Your task to perform on an android device: search for starred emails in the gmail app Image 0: 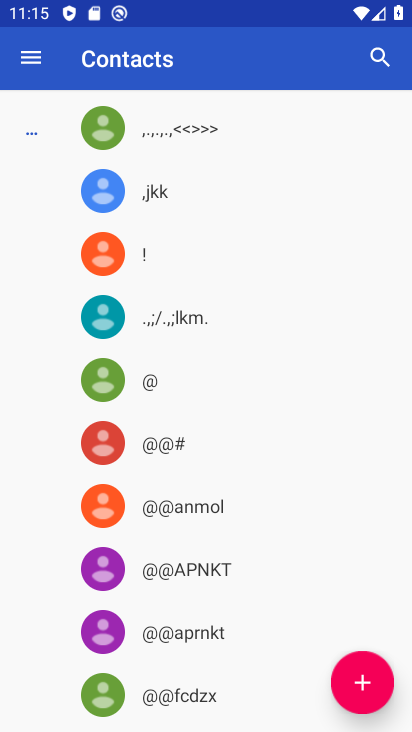
Step 0: press back button
Your task to perform on an android device: search for starred emails in the gmail app Image 1: 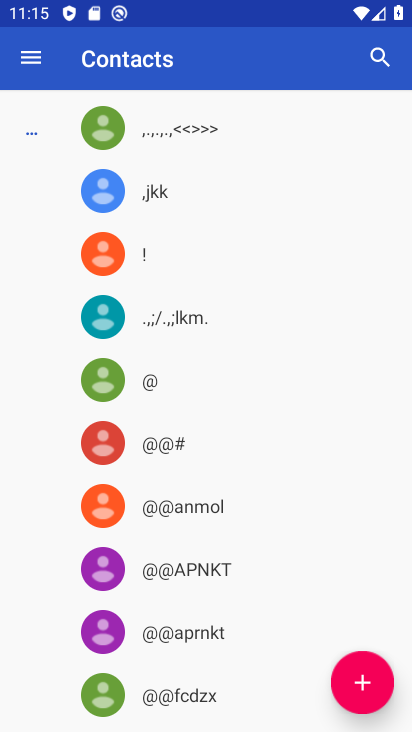
Step 1: press back button
Your task to perform on an android device: search for starred emails in the gmail app Image 2: 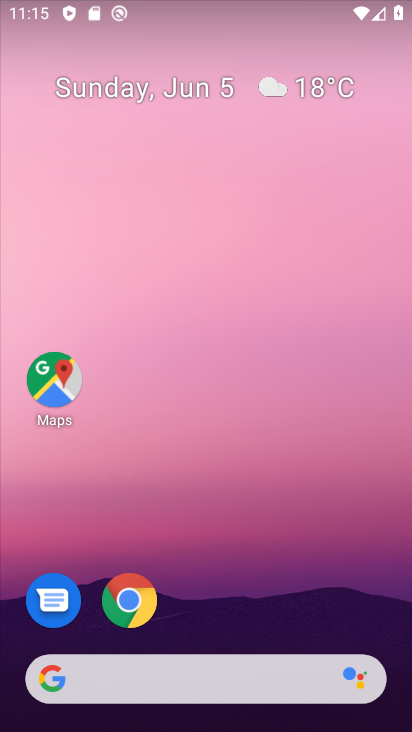
Step 2: press back button
Your task to perform on an android device: search for starred emails in the gmail app Image 3: 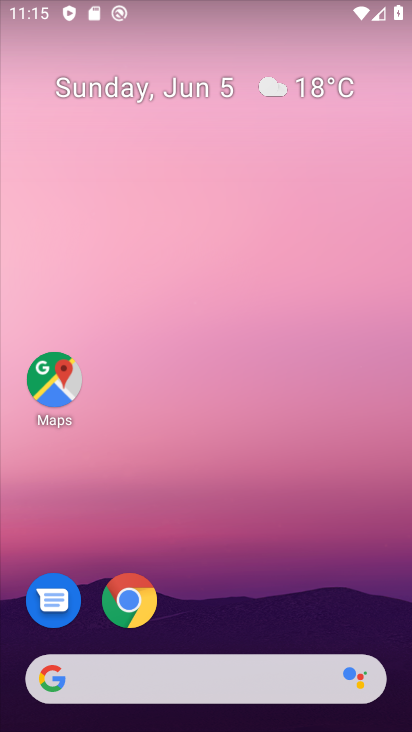
Step 3: drag from (251, 684) to (154, 287)
Your task to perform on an android device: search for starred emails in the gmail app Image 4: 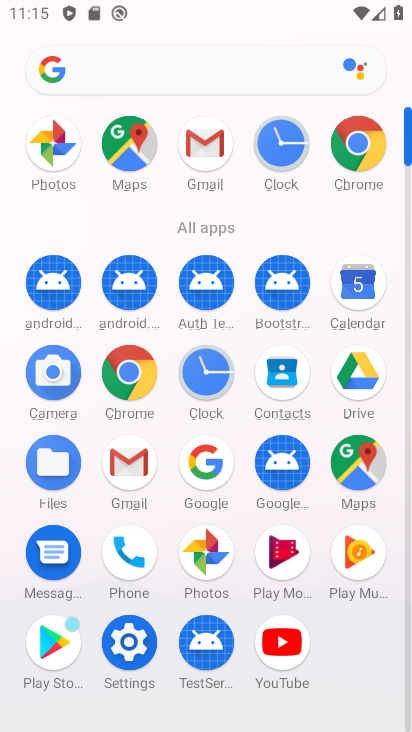
Step 4: click (152, 467)
Your task to perform on an android device: search for starred emails in the gmail app Image 5: 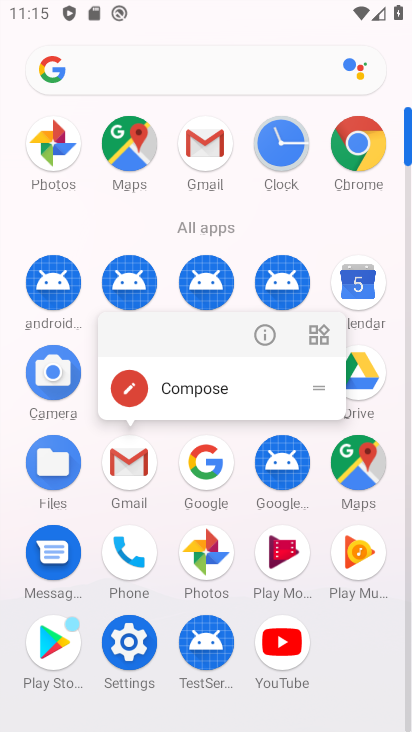
Step 5: click (138, 467)
Your task to perform on an android device: search for starred emails in the gmail app Image 6: 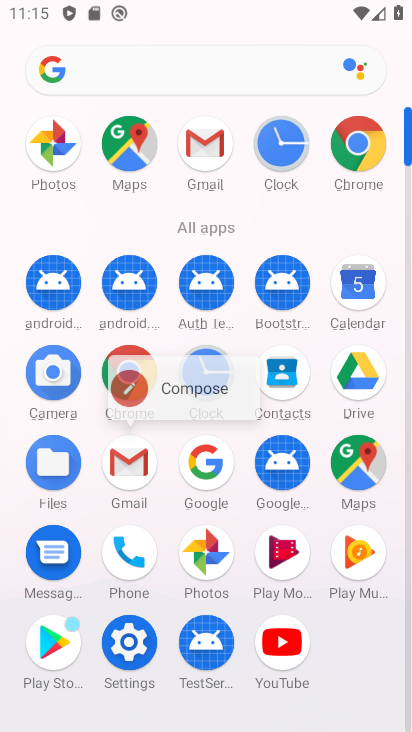
Step 6: click (140, 462)
Your task to perform on an android device: search for starred emails in the gmail app Image 7: 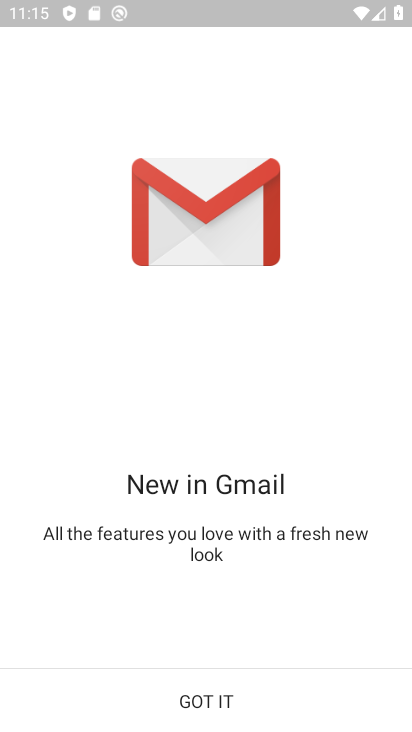
Step 7: click (209, 686)
Your task to perform on an android device: search for starred emails in the gmail app Image 8: 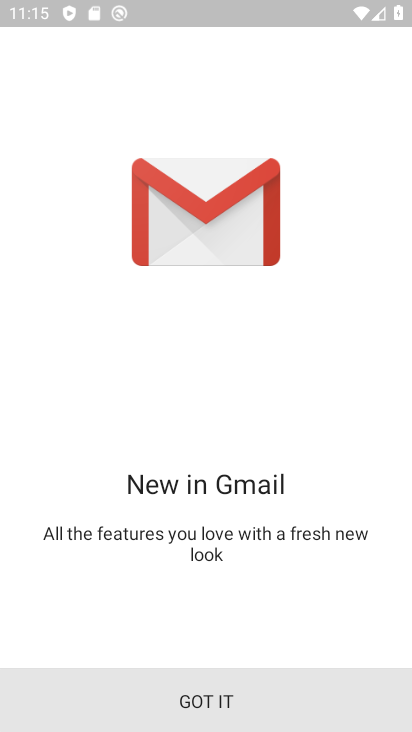
Step 8: click (208, 687)
Your task to perform on an android device: search for starred emails in the gmail app Image 9: 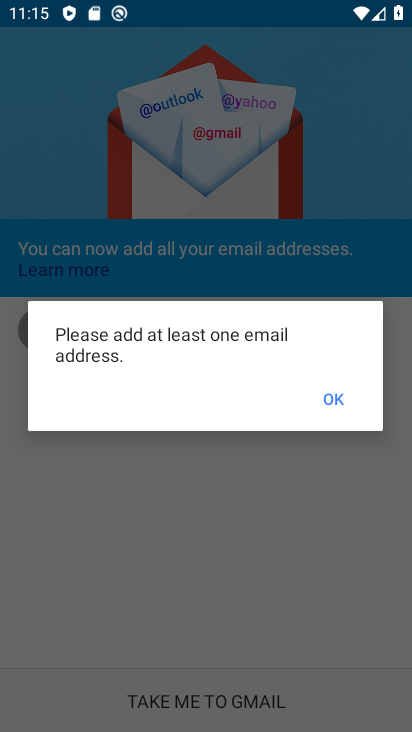
Step 9: click (194, 693)
Your task to perform on an android device: search for starred emails in the gmail app Image 10: 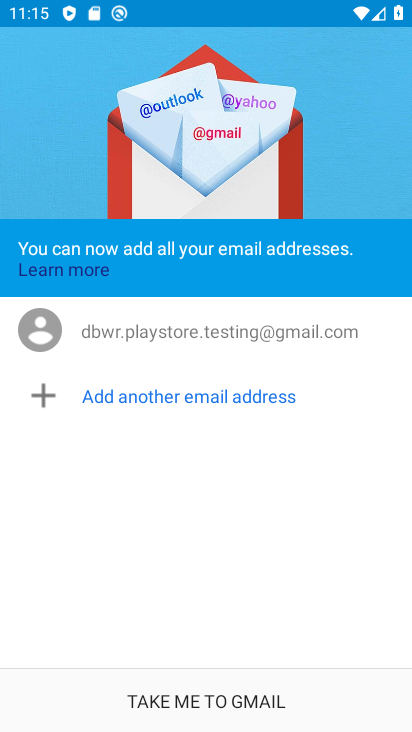
Step 10: click (196, 693)
Your task to perform on an android device: search for starred emails in the gmail app Image 11: 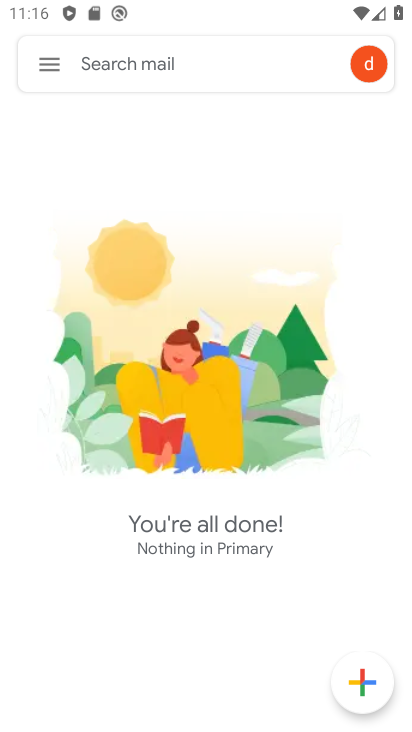
Step 11: press back button
Your task to perform on an android device: search for starred emails in the gmail app Image 12: 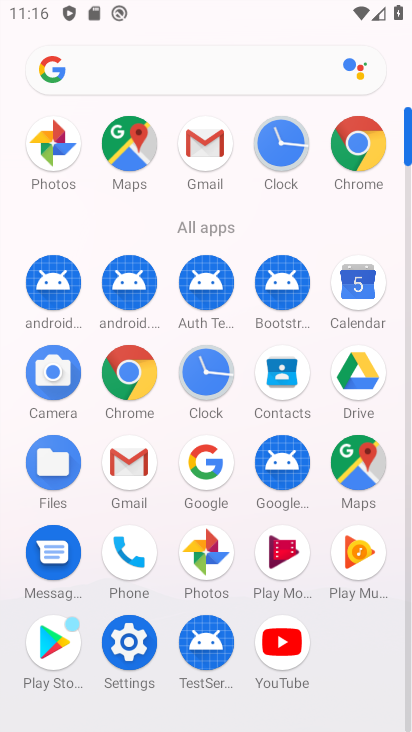
Step 12: click (208, 143)
Your task to perform on an android device: search for starred emails in the gmail app Image 13: 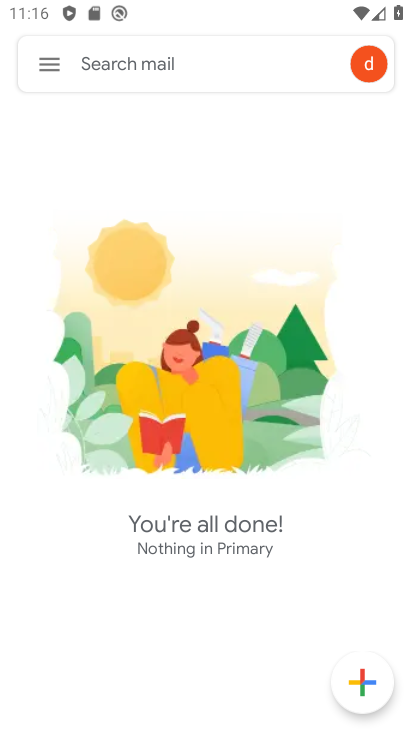
Step 13: drag from (40, 67) to (37, 342)
Your task to perform on an android device: search for starred emails in the gmail app Image 14: 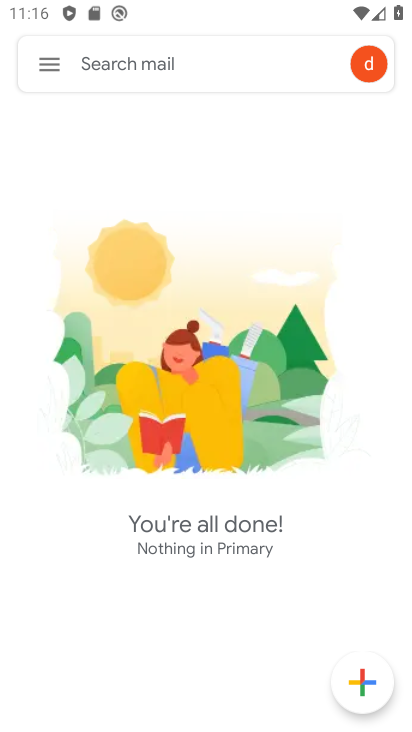
Step 14: drag from (42, 67) to (47, 196)
Your task to perform on an android device: search for starred emails in the gmail app Image 15: 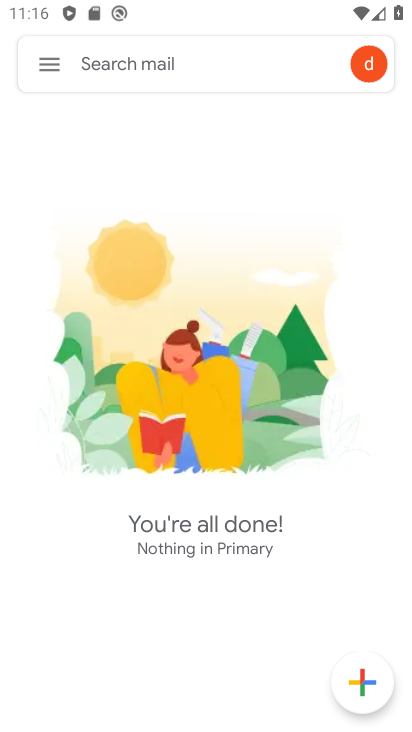
Step 15: click (41, 77)
Your task to perform on an android device: search for starred emails in the gmail app Image 16: 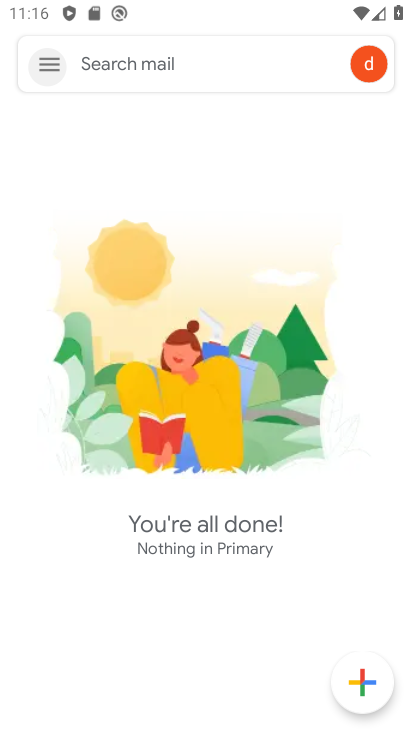
Step 16: click (42, 76)
Your task to perform on an android device: search for starred emails in the gmail app Image 17: 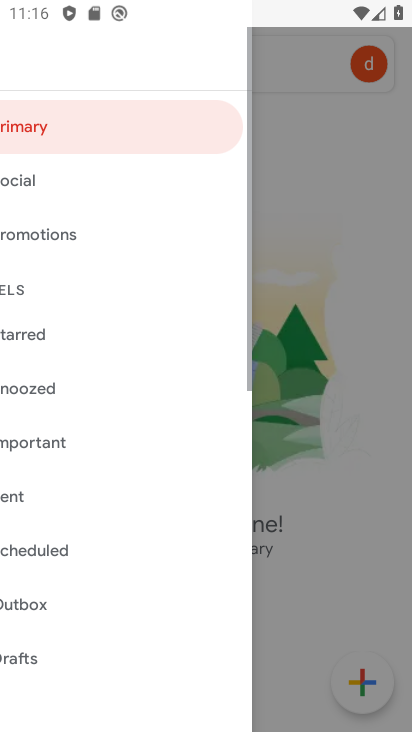
Step 17: click (42, 75)
Your task to perform on an android device: search for starred emails in the gmail app Image 18: 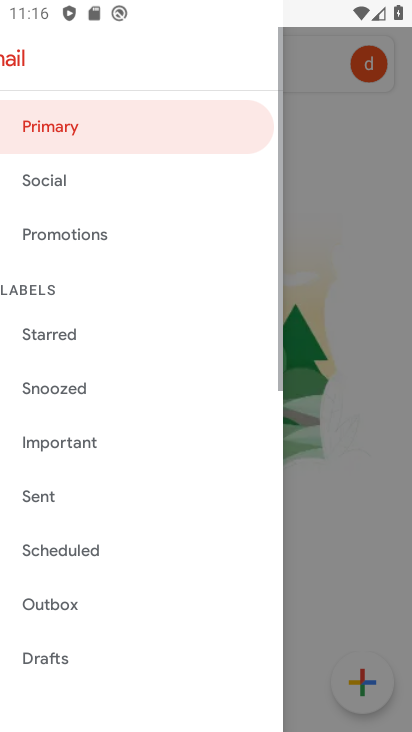
Step 18: drag from (42, 75) to (91, 334)
Your task to perform on an android device: search for starred emails in the gmail app Image 19: 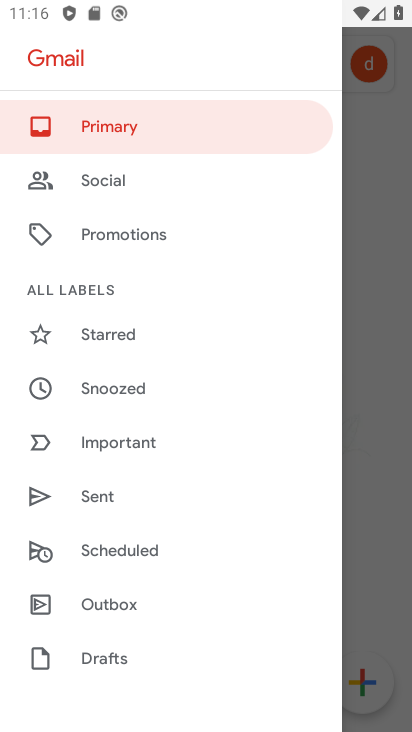
Step 19: click (91, 334)
Your task to perform on an android device: search for starred emails in the gmail app Image 20: 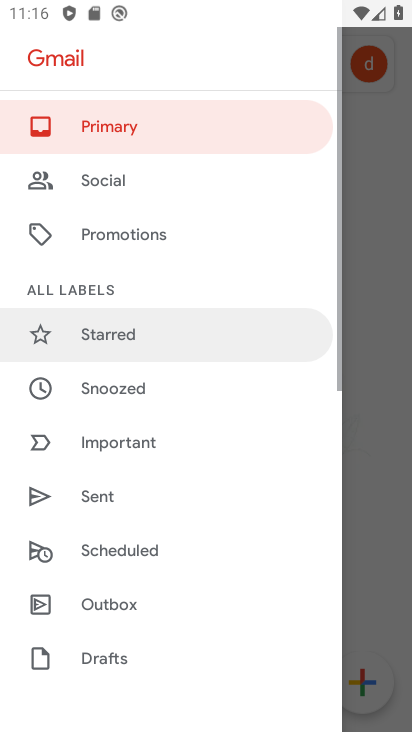
Step 20: click (91, 334)
Your task to perform on an android device: search for starred emails in the gmail app Image 21: 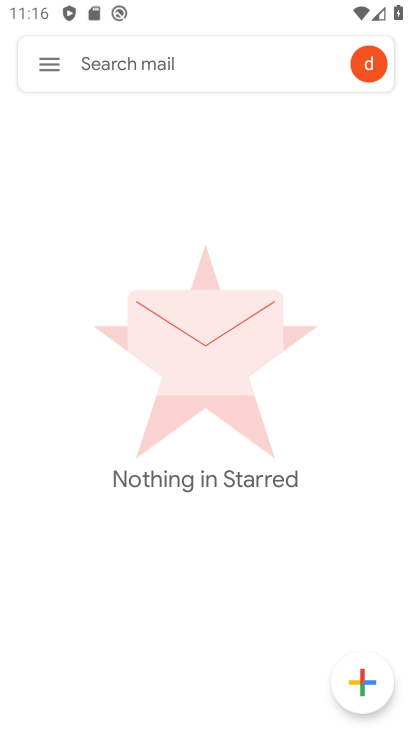
Step 21: task complete